Your task to perform on an android device: stop showing notifications on the lock screen Image 0: 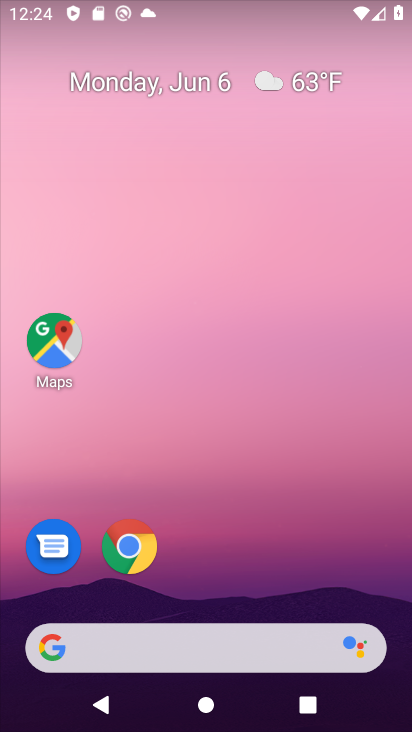
Step 0: drag from (204, 609) to (209, 2)
Your task to perform on an android device: stop showing notifications on the lock screen Image 1: 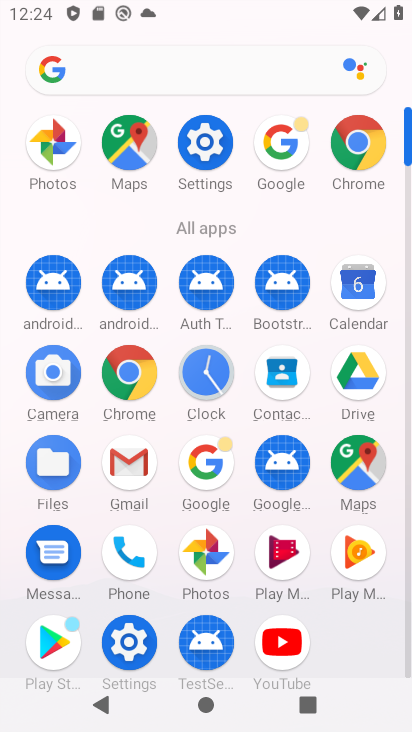
Step 1: click (191, 152)
Your task to perform on an android device: stop showing notifications on the lock screen Image 2: 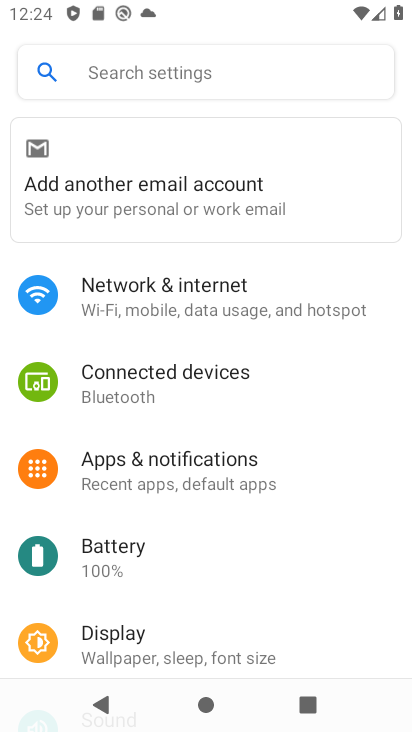
Step 2: drag from (241, 583) to (196, 183)
Your task to perform on an android device: stop showing notifications on the lock screen Image 3: 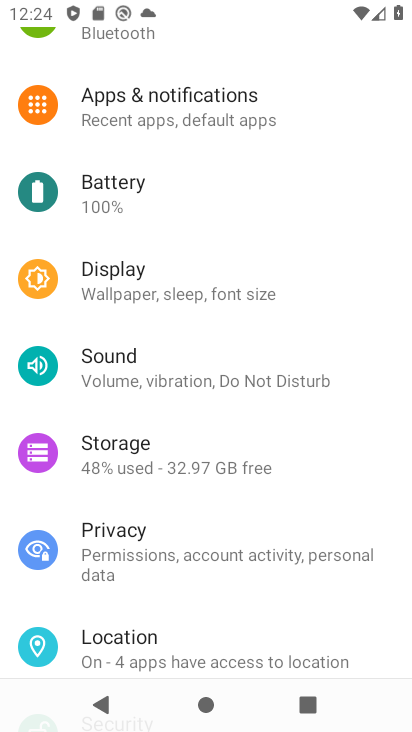
Step 3: click (179, 116)
Your task to perform on an android device: stop showing notifications on the lock screen Image 4: 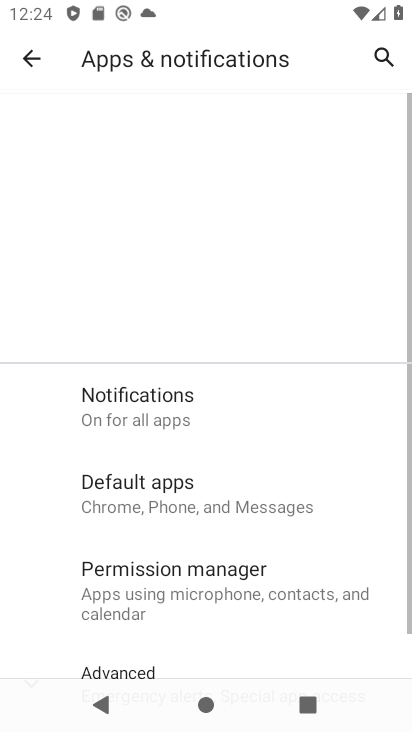
Step 4: click (139, 396)
Your task to perform on an android device: stop showing notifications on the lock screen Image 5: 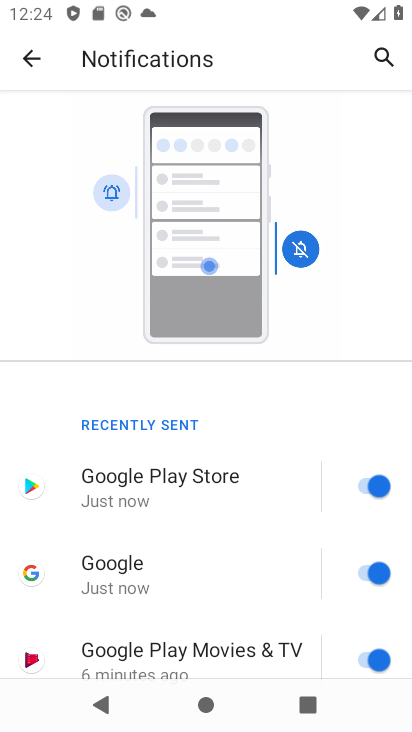
Step 5: drag from (188, 538) to (170, 4)
Your task to perform on an android device: stop showing notifications on the lock screen Image 6: 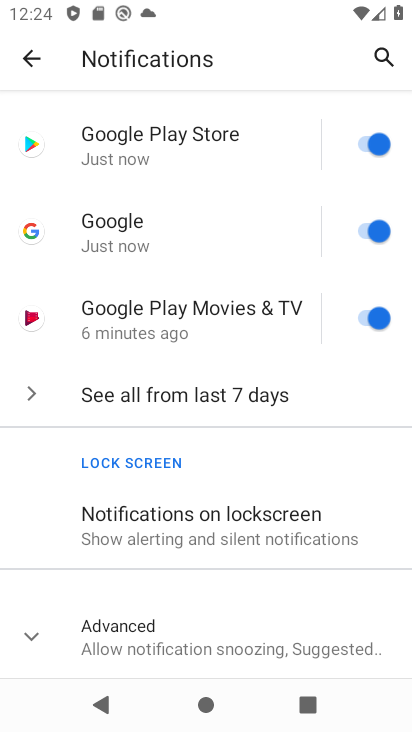
Step 6: click (241, 528)
Your task to perform on an android device: stop showing notifications on the lock screen Image 7: 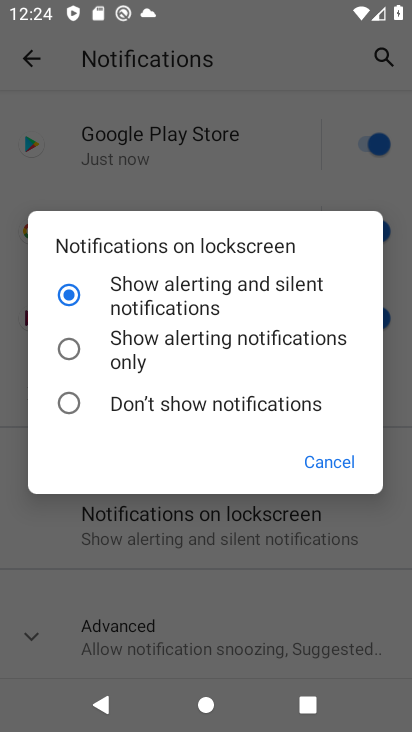
Step 7: click (144, 409)
Your task to perform on an android device: stop showing notifications on the lock screen Image 8: 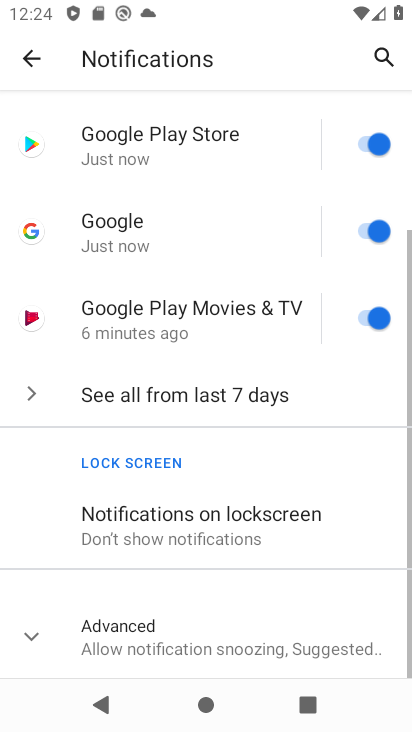
Step 8: task complete